Your task to perform on an android device: toggle location history Image 0: 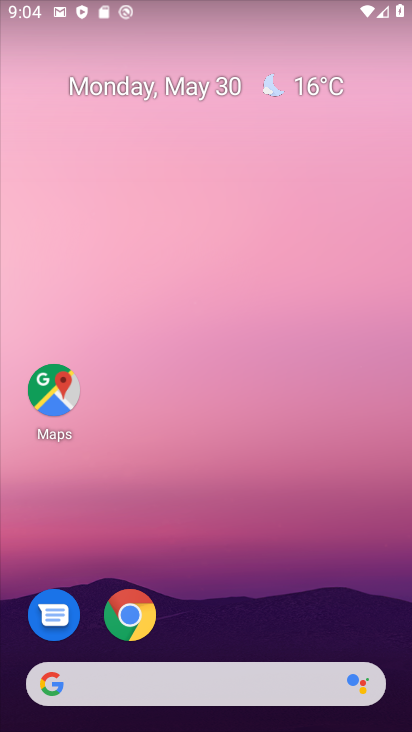
Step 0: drag from (237, 506) to (239, 0)
Your task to perform on an android device: toggle location history Image 1: 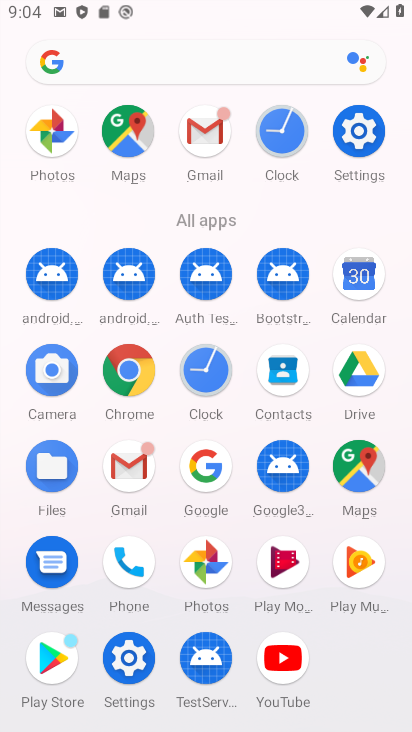
Step 1: click (347, 124)
Your task to perform on an android device: toggle location history Image 2: 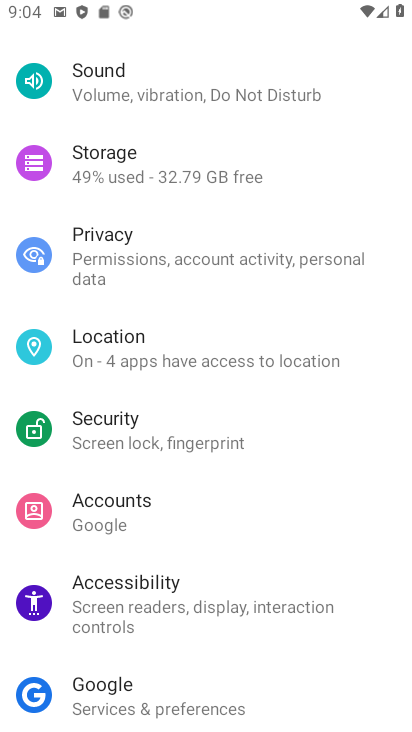
Step 2: click (138, 340)
Your task to perform on an android device: toggle location history Image 3: 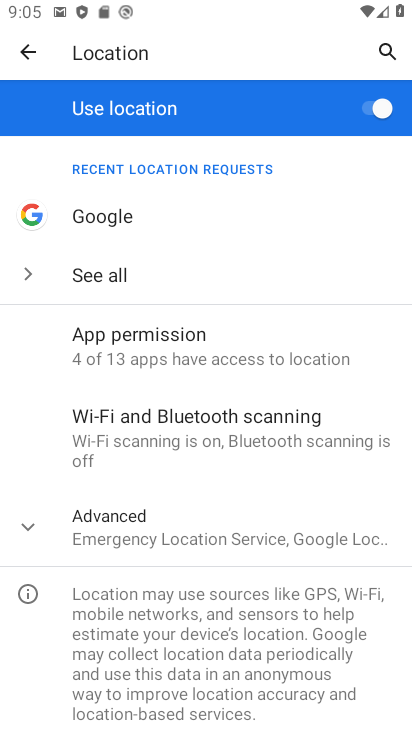
Step 3: click (188, 533)
Your task to perform on an android device: toggle location history Image 4: 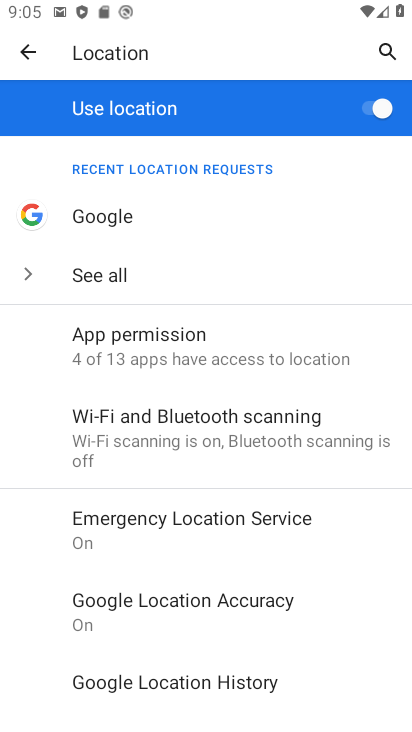
Step 4: click (187, 684)
Your task to perform on an android device: toggle location history Image 5: 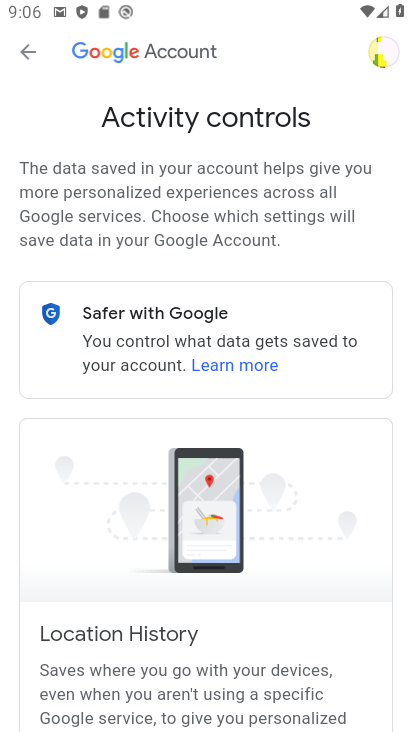
Step 5: drag from (214, 603) to (284, 129)
Your task to perform on an android device: toggle location history Image 6: 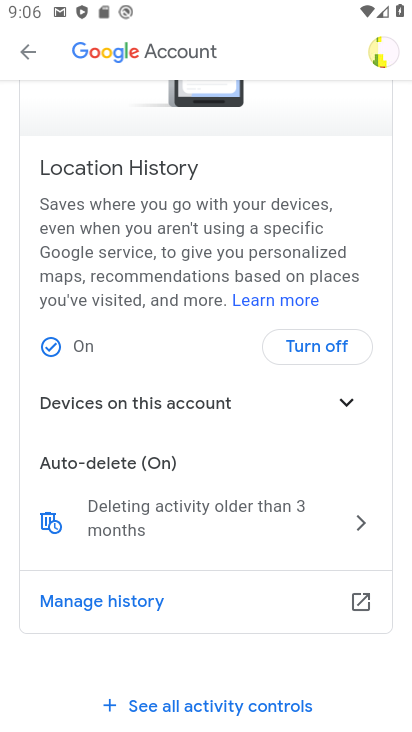
Step 6: click (312, 347)
Your task to perform on an android device: toggle location history Image 7: 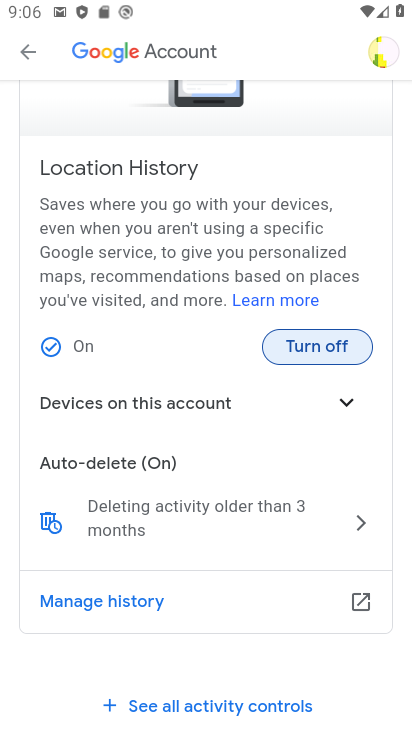
Step 7: click (317, 344)
Your task to perform on an android device: toggle location history Image 8: 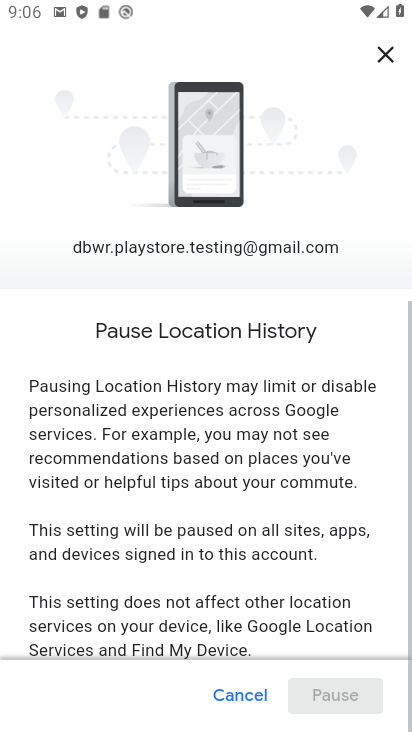
Step 8: drag from (209, 553) to (246, 71)
Your task to perform on an android device: toggle location history Image 9: 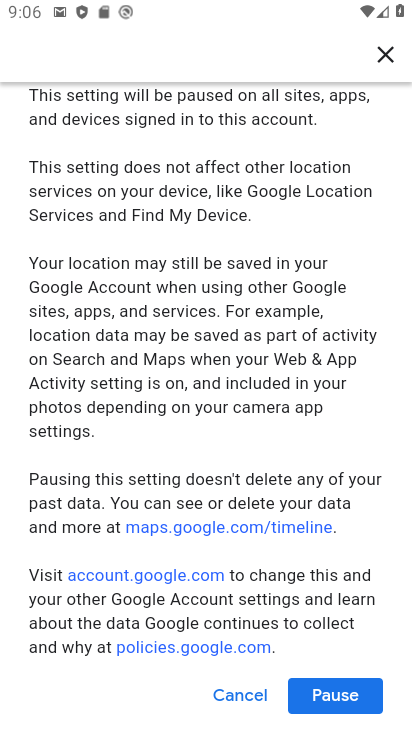
Step 9: drag from (196, 531) to (262, 42)
Your task to perform on an android device: toggle location history Image 10: 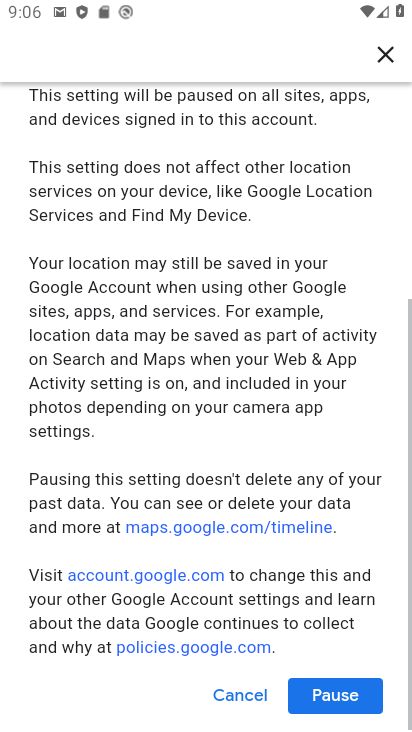
Step 10: click (332, 693)
Your task to perform on an android device: toggle location history Image 11: 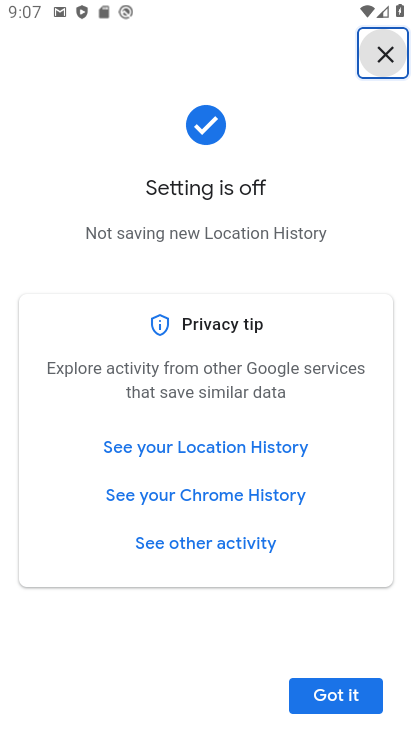
Step 11: click (374, 692)
Your task to perform on an android device: toggle location history Image 12: 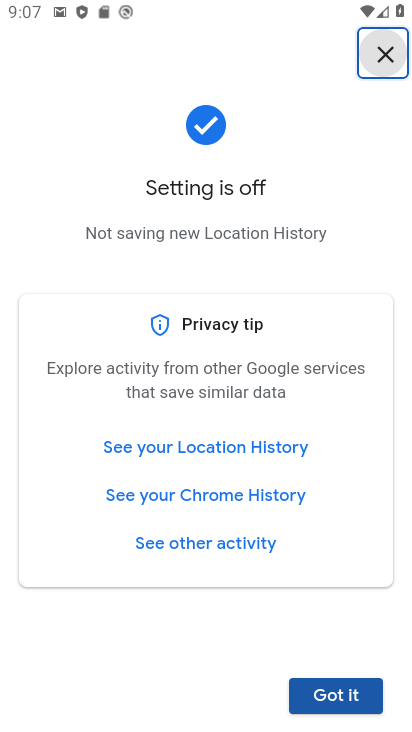
Step 12: task complete